Your task to perform on an android device: set the timer Image 0: 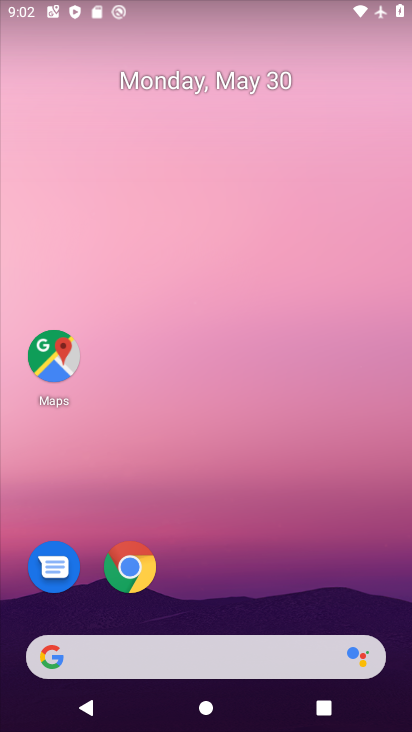
Step 0: drag from (235, 596) to (158, 98)
Your task to perform on an android device: set the timer Image 1: 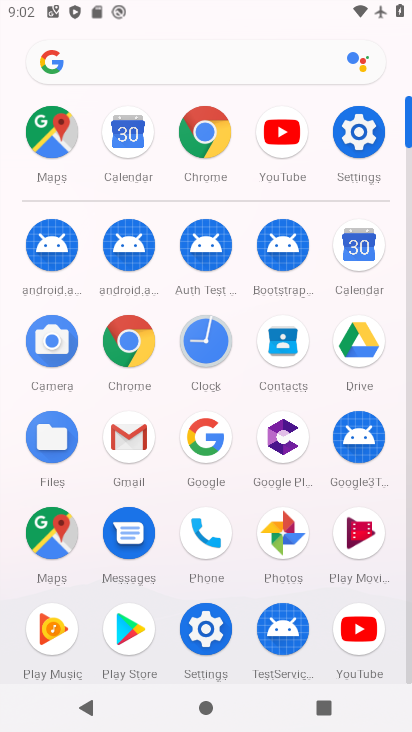
Step 1: click (215, 352)
Your task to perform on an android device: set the timer Image 2: 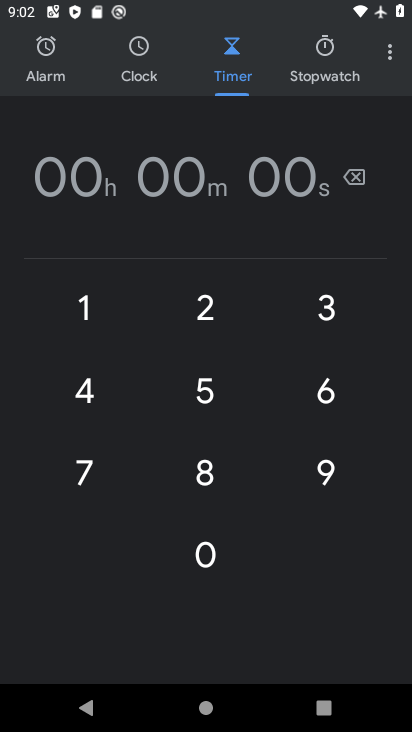
Step 2: type "1000000"
Your task to perform on an android device: set the timer Image 3: 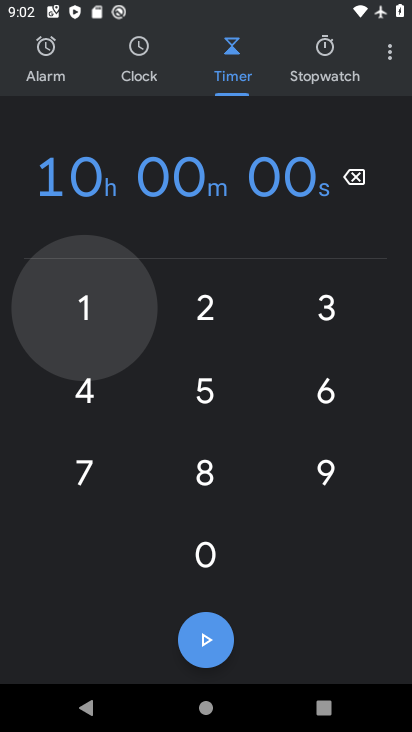
Step 3: click (206, 634)
Your task to perform on an android device: set the timer Image 4: 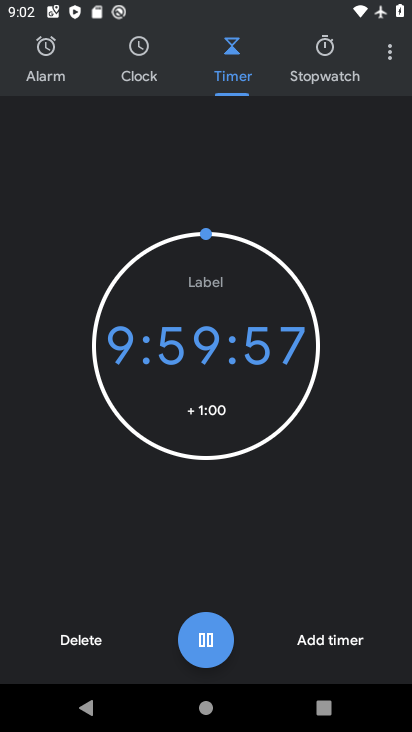
Step 4: task complete